Your task to perform on an android device: Open Google Chrome and open the bookmarks view Image 0: 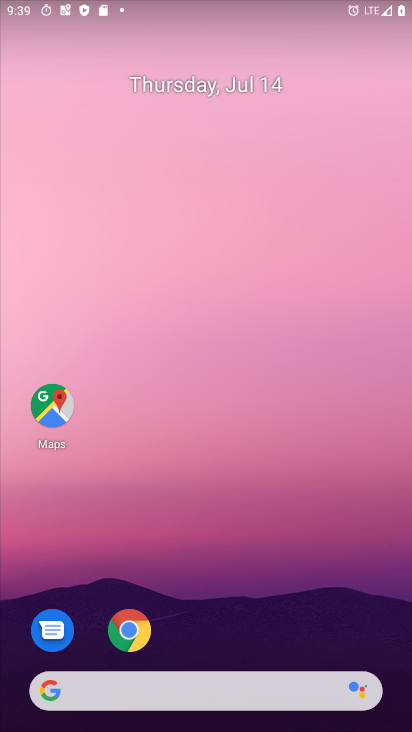
Step 0: drag from (208, 730) to (201, 236)
Your task to perform on an android device: Open Google Chrome and open the bookmarks view Image 1: 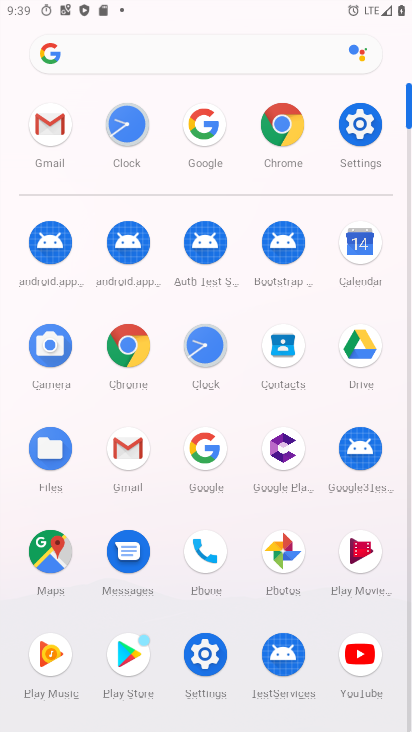
Step 1: click (121, 344)
Your task to perform on an android device: Open Google Chrome and open the bookmarks view Image 2: 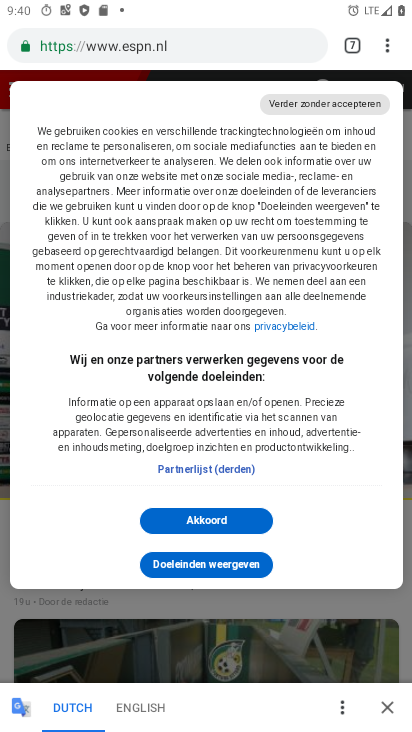
Step 2: click (384, 48)
Your task to perform on an android device: Open Google Chrome and open the bookmarks view Image 3: 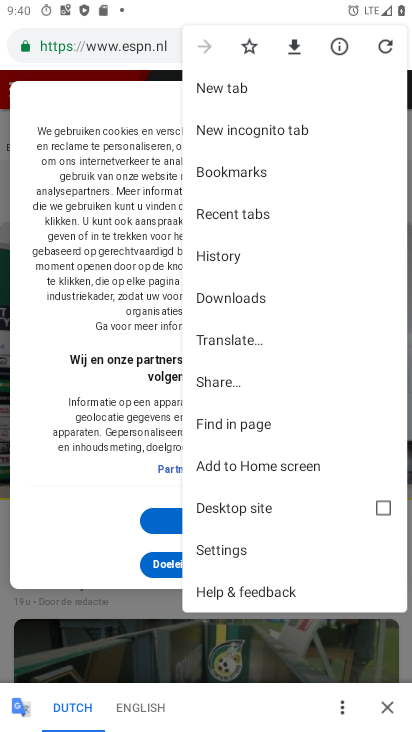
Step 3: click (222, 170)
Your task to perform on an android device: Open Google Chrome and open the bookmarks view Image 4: 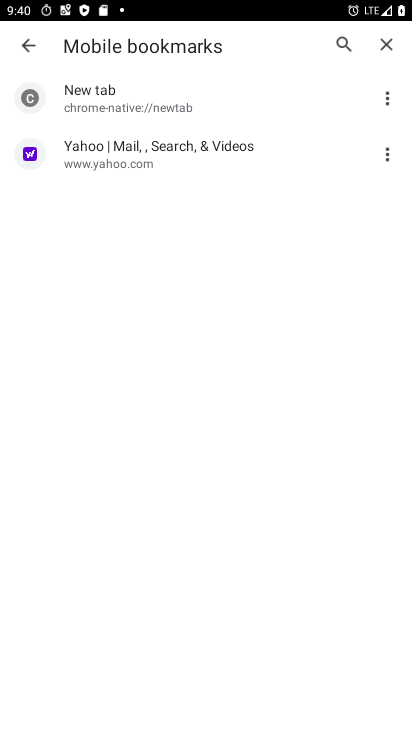
Step 4: task complete